Your task to perform on an android device: Open calendar and show me the second week of next month Image 0: 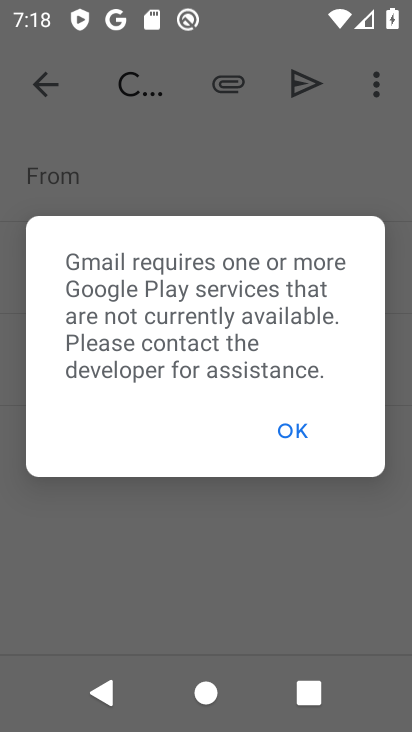
Step 0: press home button
Your task to perform on an android device: Open calendar and show me the second week of next month Image 1: 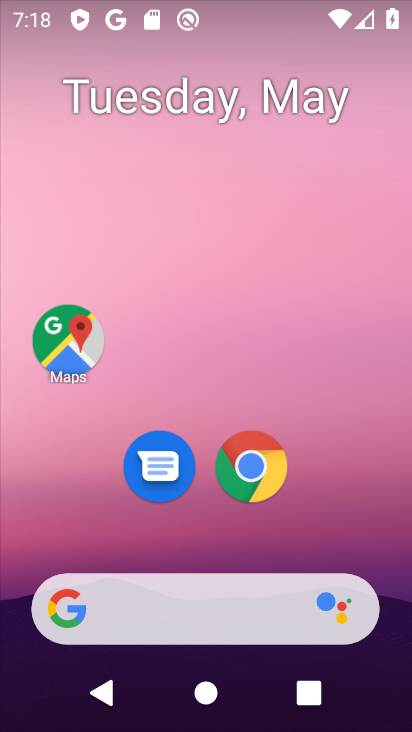
Step 1: drag from (176, 602) to (334, 48)
Your task to perform on an android device: Open calendar and show me the second week of next month Image 2: 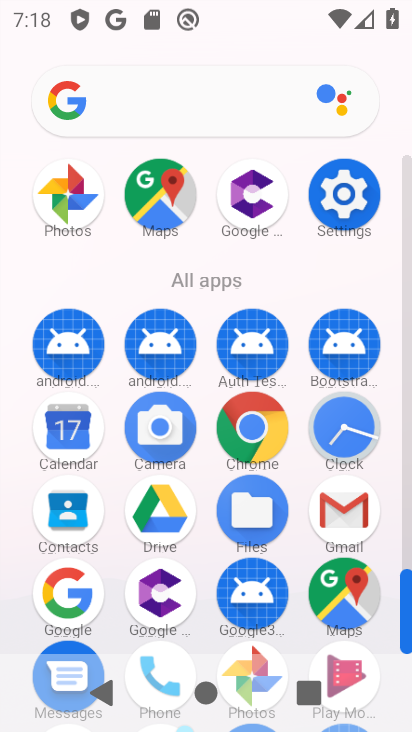
Step 2: click (73, 441)
Your task to perform on an android device: Open calendar and show me the second week of next month Image 3: 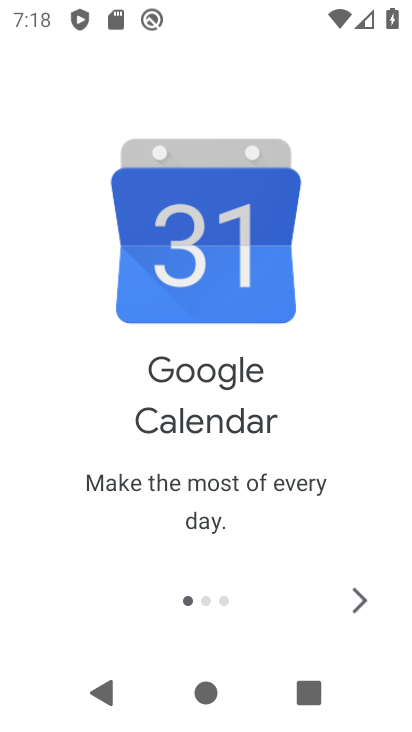
Step 3: click (361, 597)
Your task to perform on an android device: Open calendar and show me the second week of next month Image 4: 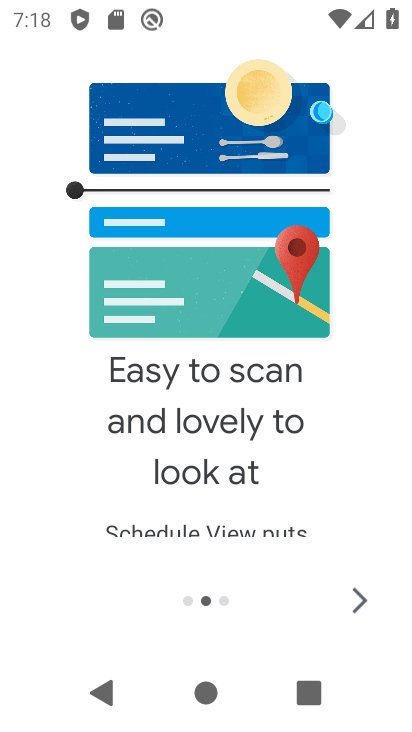
Step 4: click (361, 597)
Your task to perform on an android device: Open calendar and show me the second week of next month Image 5: 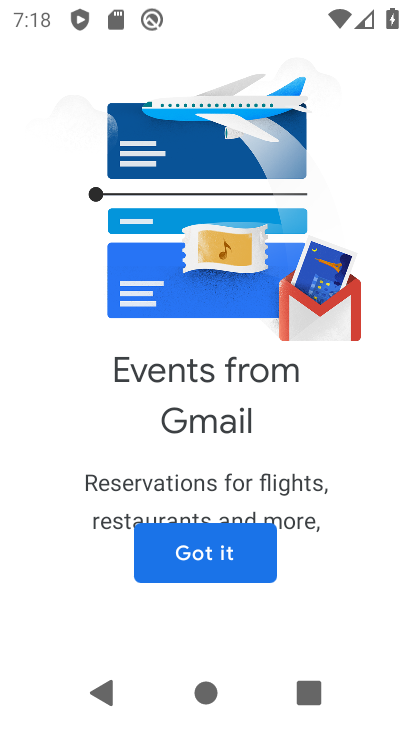
Step 5: click (213, 562)
Your task to perform on an android device: Open calendar and show me the second week of next month Image 6: 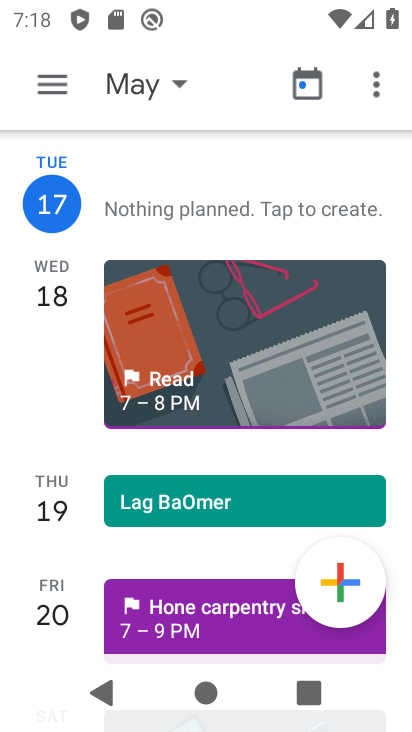
Step 6: click (125, 87)
Your task to perform on an android device: Open calendar and show me the second week of next month Image 7: 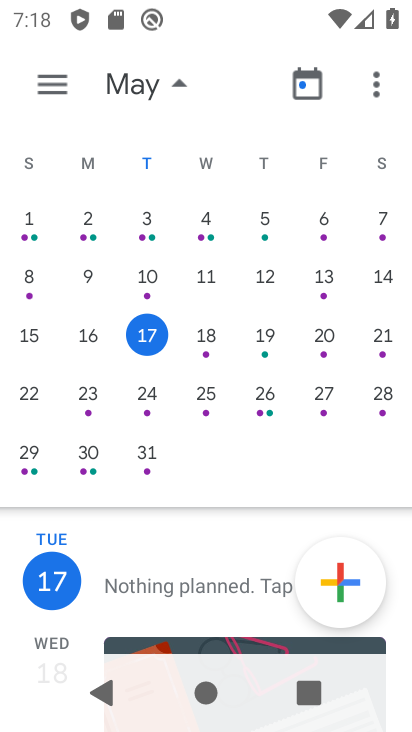
Step 7: drag from (330, 311) to (113, 285)
Your task to perform on an android device: Open calendar and show me the second week of next month Image 8: 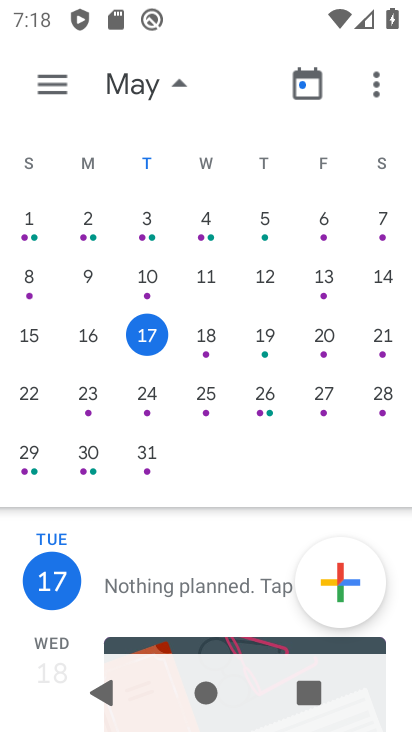
Step 8: drag from (365, 292) to (6, 452)
Your task to perform on an android device: Open calendar and show me the second week of next month Image 9: 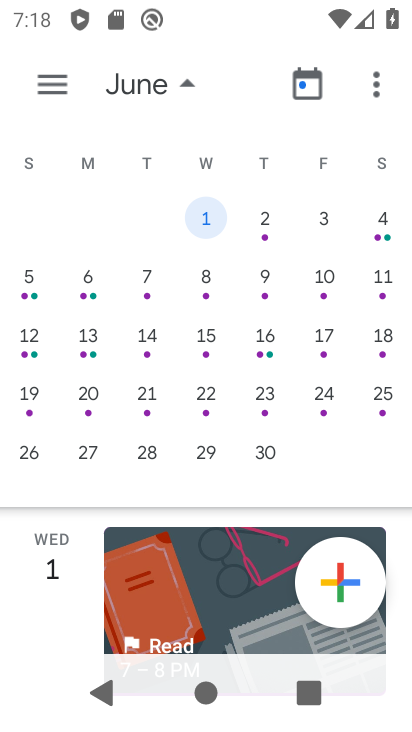
Step 9: click (34, 276)
Your task to perform on an android device: Open calendar and show me the second week of next month Image 10: 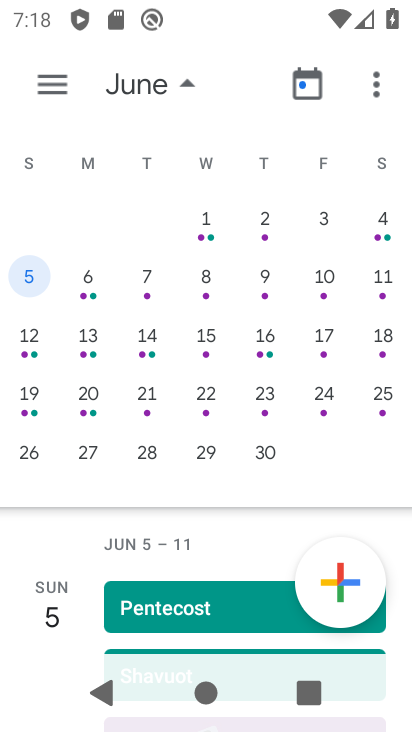
Step 10: click (49, 88)
Your task to perform on an android device: Open calendar and show me the second week of next month Image 11: 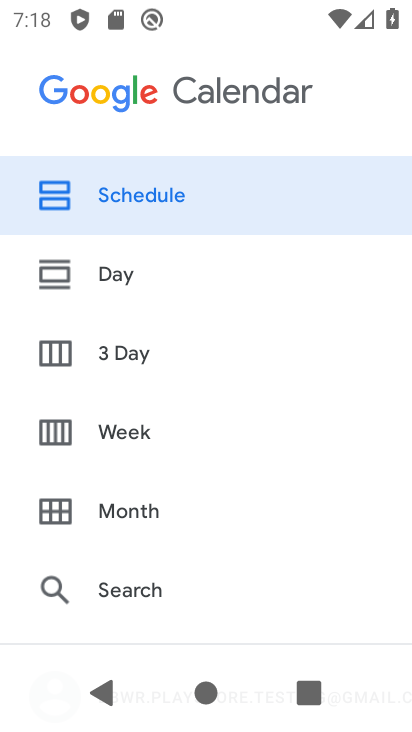
Step 11: click (138, 439)
Your task to perform on an android device: Open calendar and show me the second week of next month Image 12: 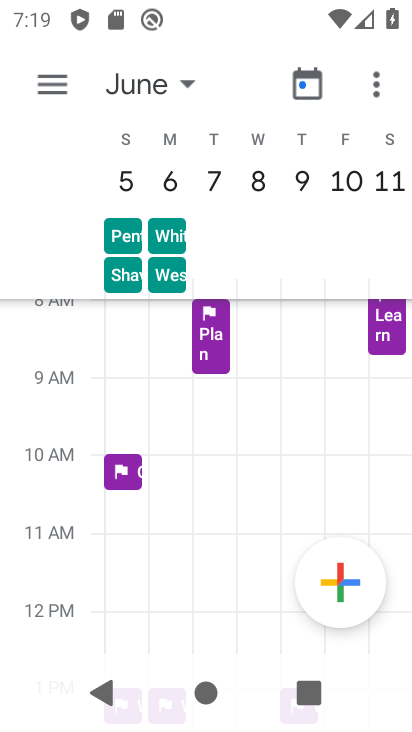
Step 12: task complete